Your task to perform on an android device: Go to display settings Image 0: 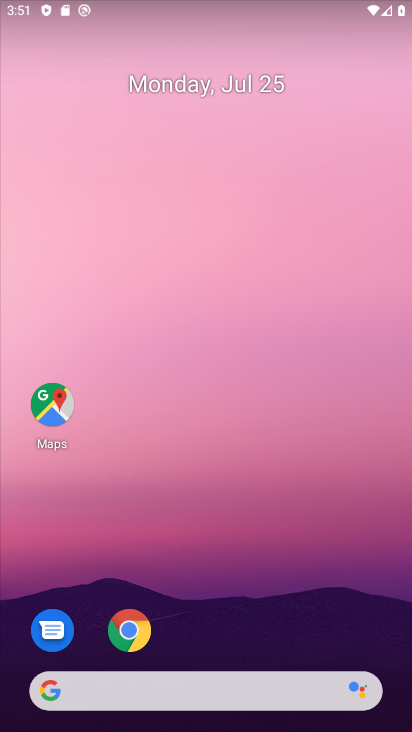
Step 0: click (138, 632)
Your task to perform on an android device: Go to display settings Image 1: 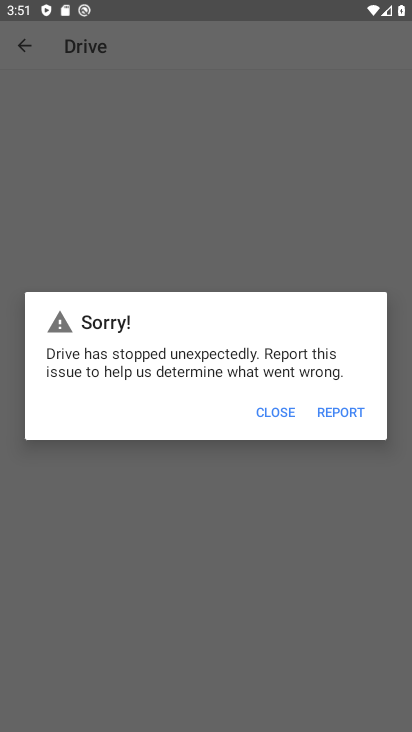
Step 1: press home button
Your task to perform on an android device: Go to display settings Image 2: 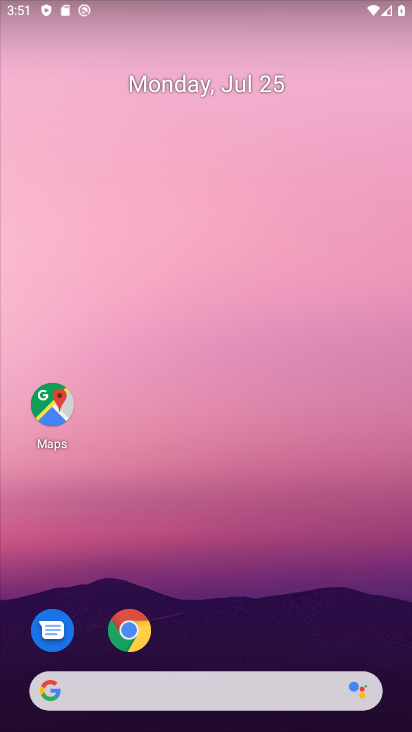
Step 2: drag from (231, 639) to (234, 125)
Your task to perform on an android device: Go to display settings Image 3: 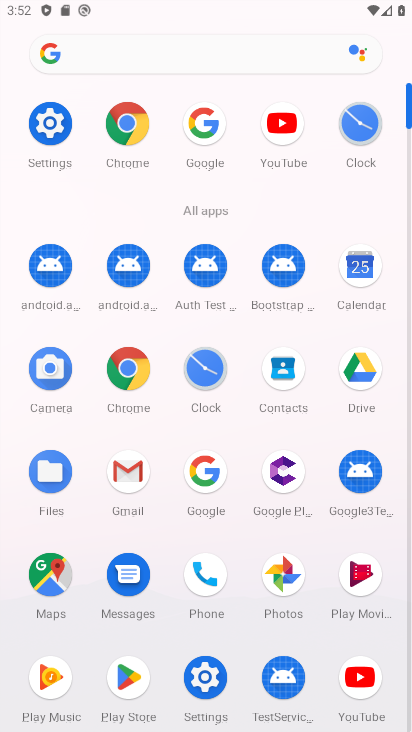
Step 3: click (46, 137)
Your task to perform on an android device: Go to display settings Image 4: 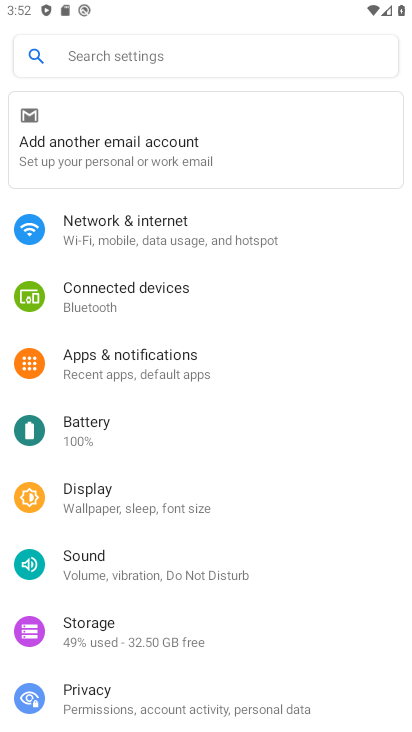
Step 4: click (147, 511)
Your task to perform on an android device: Go to display settings Image 5: 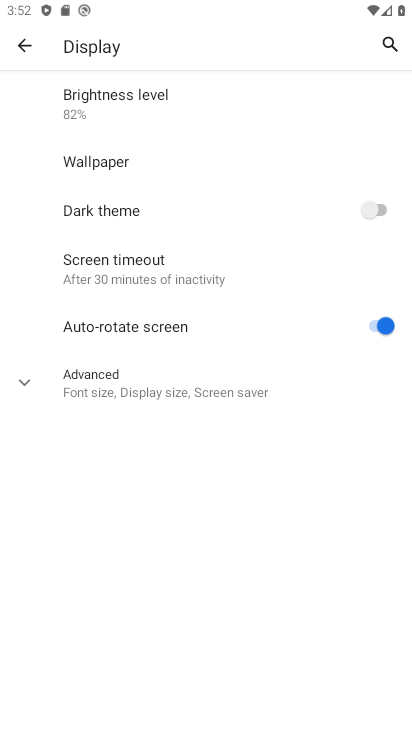
Step 5: task complete